Your task to perform on an android device: set an alarm Image 0: 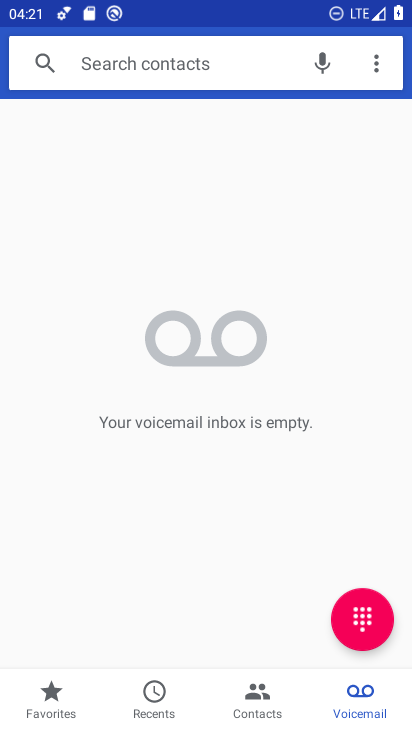
Step 0: press home button
Your task to perform on an android device: set an alarm Image 1: 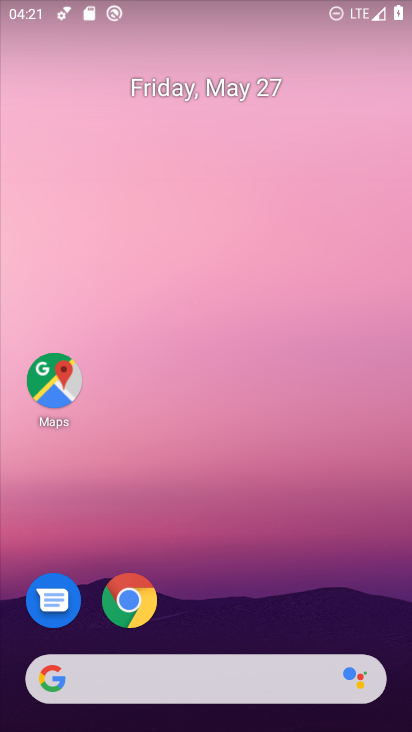
Step 1: drag from (234, 715) to (240, 285)
Your task to perform on an android device: set an alarm Image 2: 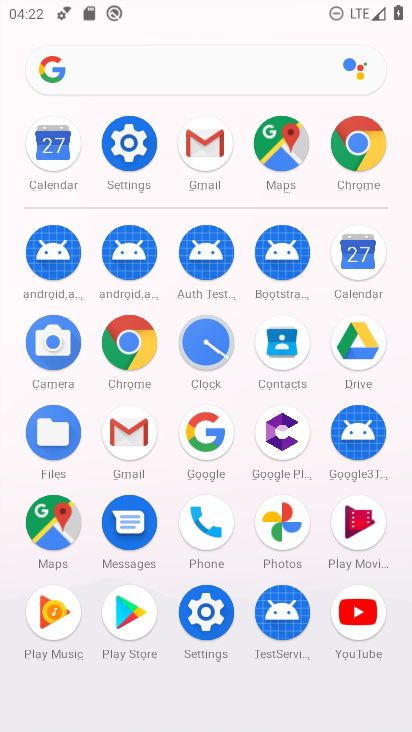
Step 2: click (209, 344)
Your task to perform on an android device: set an alarm Image 3: 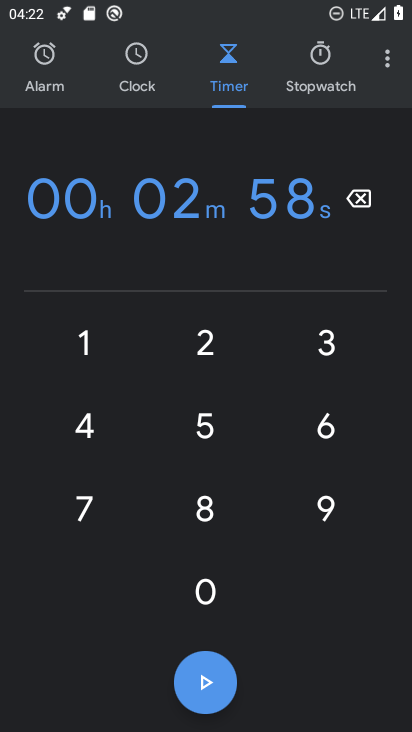
Step 3: click (45, 64)
Your task to perform on an android device: set an alarm Image 4: 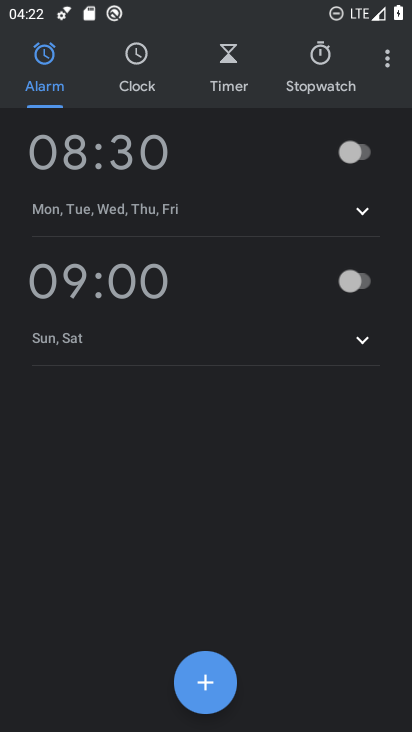
Step 4: click (207, 677)
Your task to perform on an android device: set an alarm Image 5: 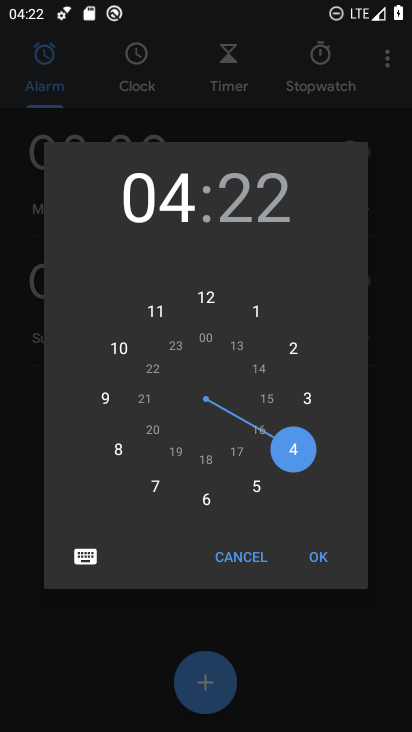
Step 5: click (206, 492)
Your task to perform on an android device: set an alarm Image 6: 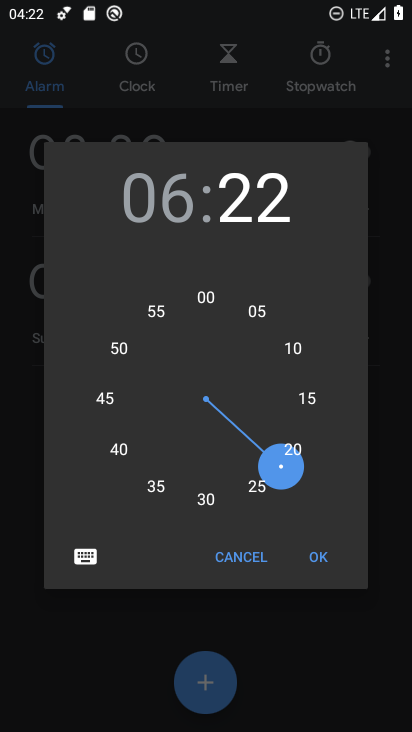
Step 6: click (322, 549)
Your task to perform on an android device: set an alarm Image 7: 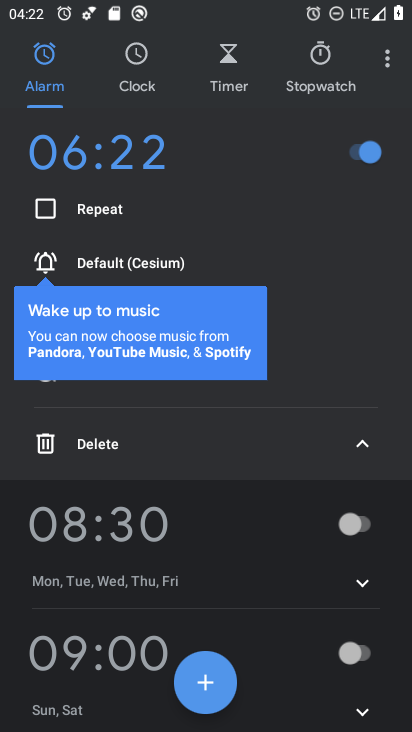
Step 7: task complete